Your task to perform on an android device: Open Android settings Image 0: 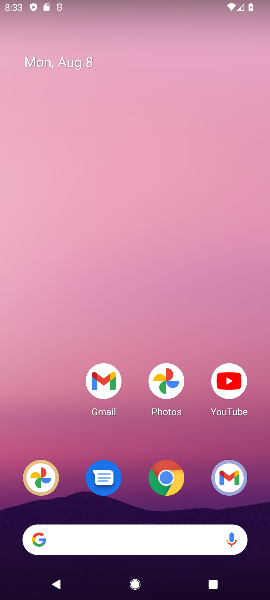
Step 0: press home button
Your task to perform on an android device: Open Android settings Image 1: 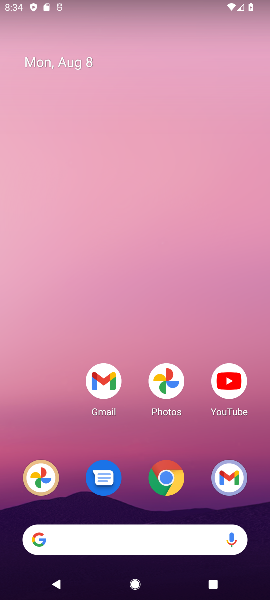
Step 1: drag from (107, 538) to (200, 68)
Your task to perform on an android device: Open Android settings Image 2: 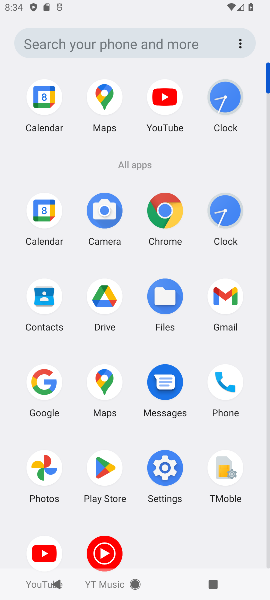
Step 2: click (164, 475)
Your task to perform on an android device: Open Android settings Image 3: 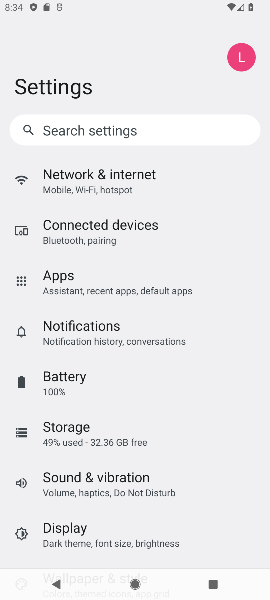
Step 3: task complete